Your task to perform on an android device: Go to Yahoo.com Image 0: 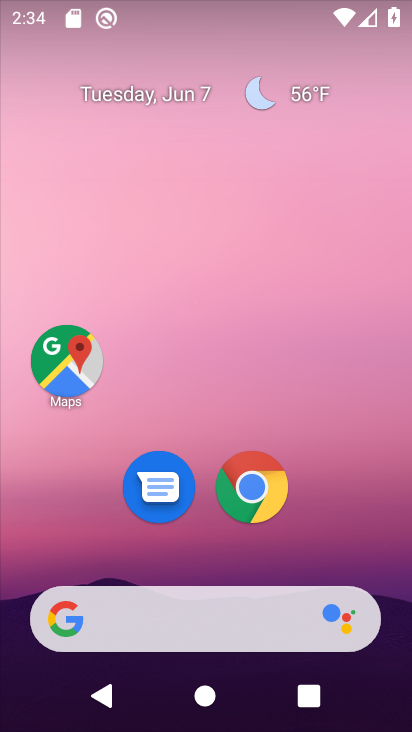
Step 0: click (264, 489)
Your task to perform on an android device: Go to Yahoo.com Image 1: 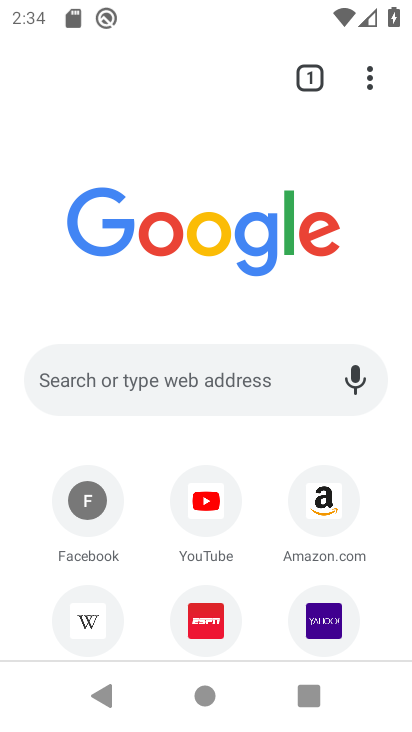
Step 1: click (316, 609)
Your task to perform on an android device: Go to Yahoo.com Image 2: 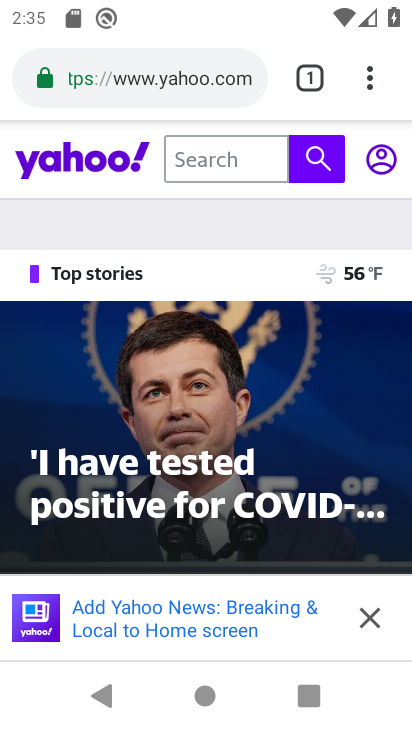
Step 2: task complete